Your task to perform on an android device: toggle sleep mode Image 0: 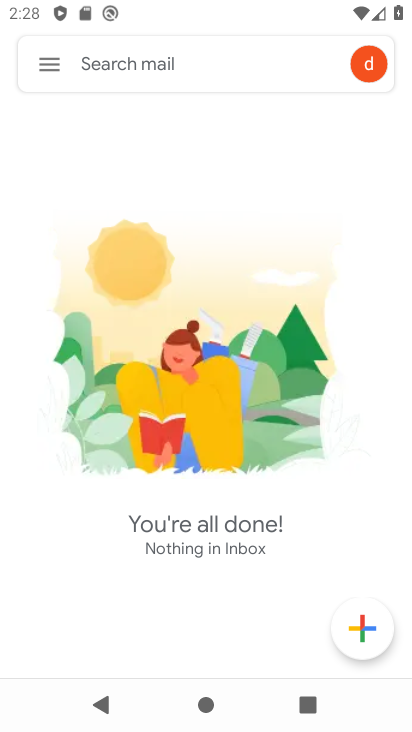
Step 0: press home button
Your task to perform on an android device: toggle sleep mode Image 1: 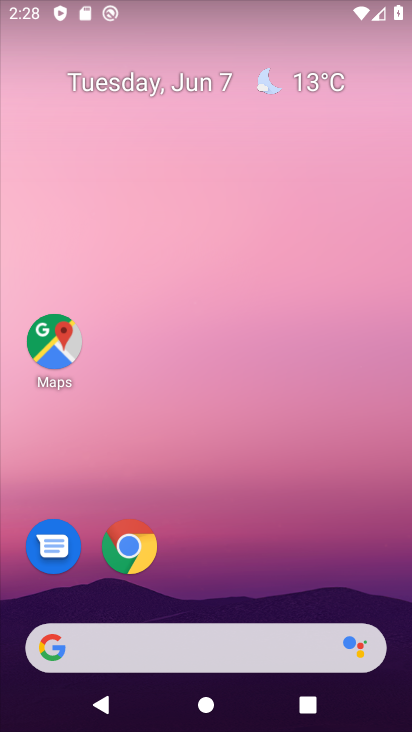
Step 1: drag from (347, 554) to (305, 188)
Your task to perform on an android device: toggle sleep mode Image 2: 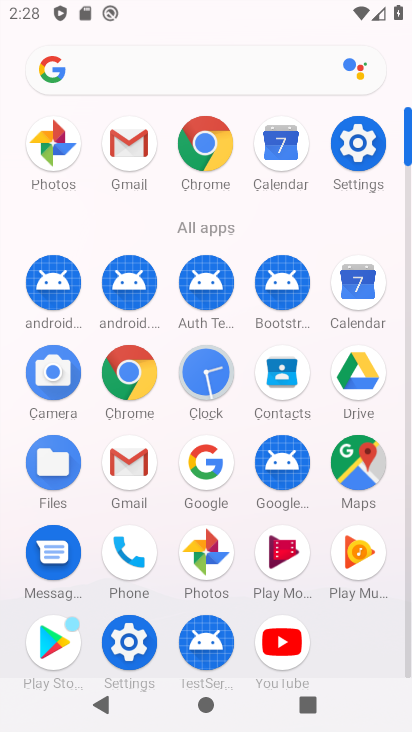
Step 2: click (363, 163)
Your task to perform on an android device: toggle sleep mode Image 3: 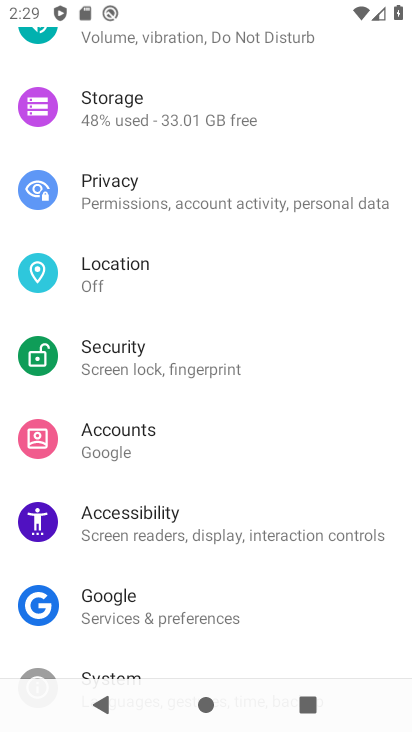
Step 3: drag from (305, 576) to (311, 365)
Your task to perform on an android device: toggle sleep mode Image 4: 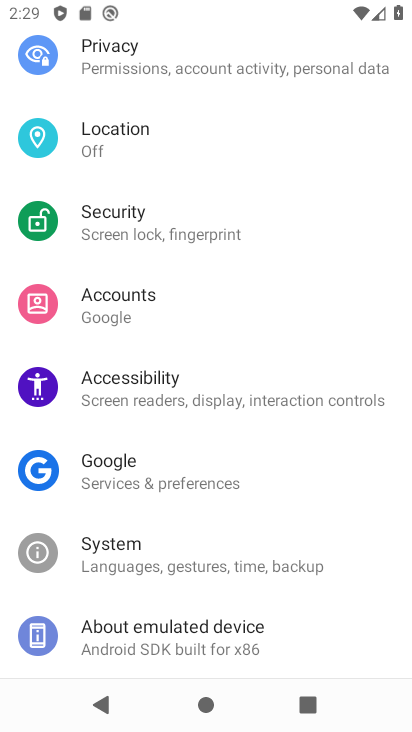
Step 4: drag from (313, 510) to (315, 332)
Your task to perform on an android device: toggle sleep mode Image 5: 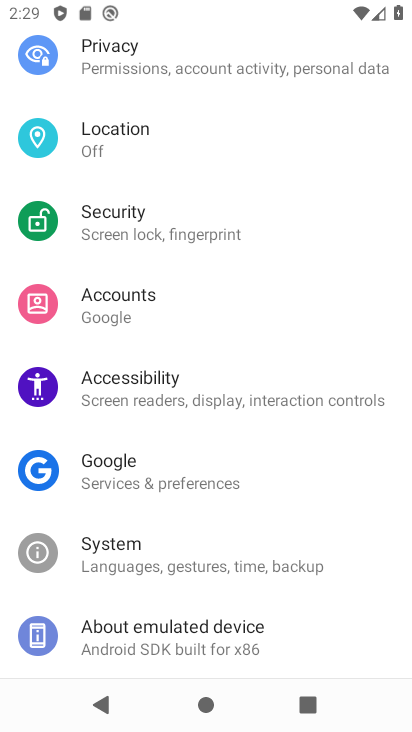
Step 5: drag from (298, 287) to (310, 445)
Your task to perform on an android device: toggle sleep mode Image 6: 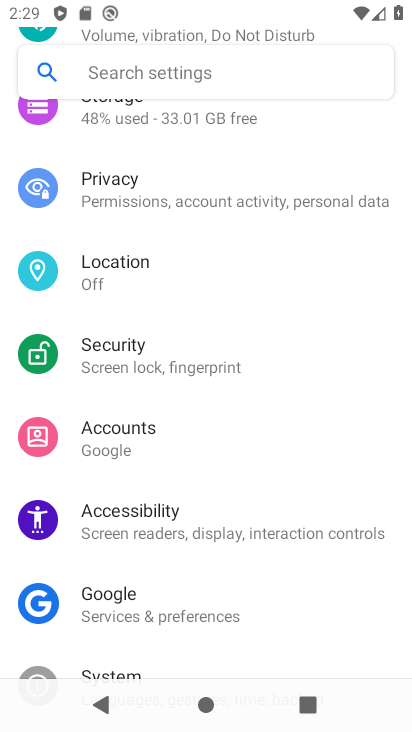
Step 6: drag from (298, 286) to (324, 474)
Your task to perform on an android device: toggle sleep mode Image 7: 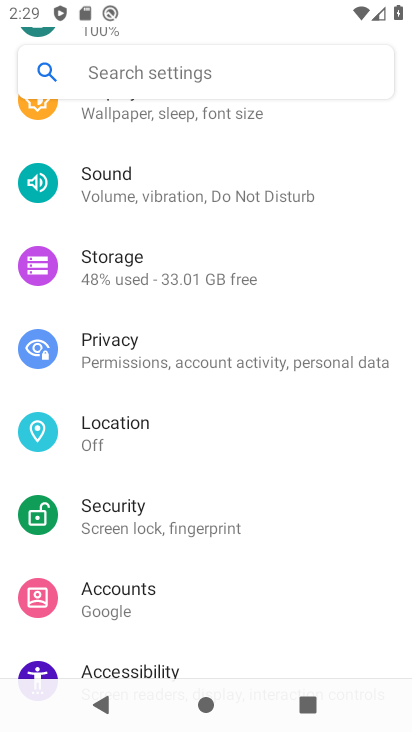
Step 7: drag from (316, 248) to (333, 397)
Your task to perform on an android device: toggle sleep mode Image 8: 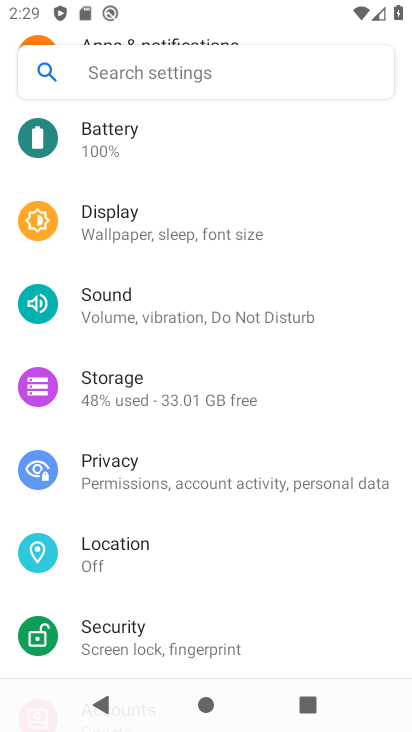
Step 8: drag from (308, 224) to (316, 373)
Your task to perform on an android device: toggle sleep mode Image 9: 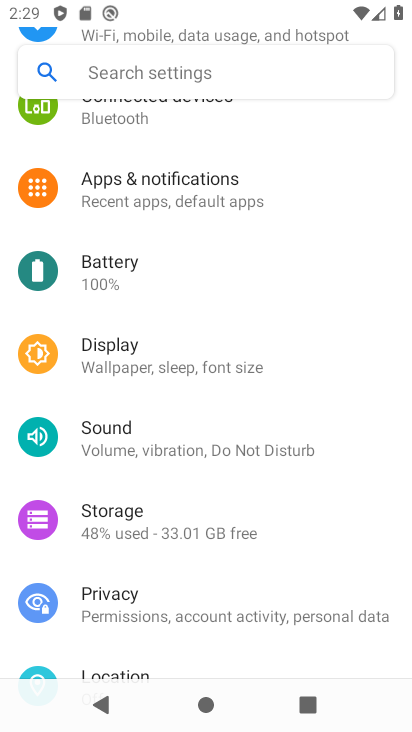
Step 9: click (183, 361)
Your task to perform on an android device: toggle sleep mode Image 10: 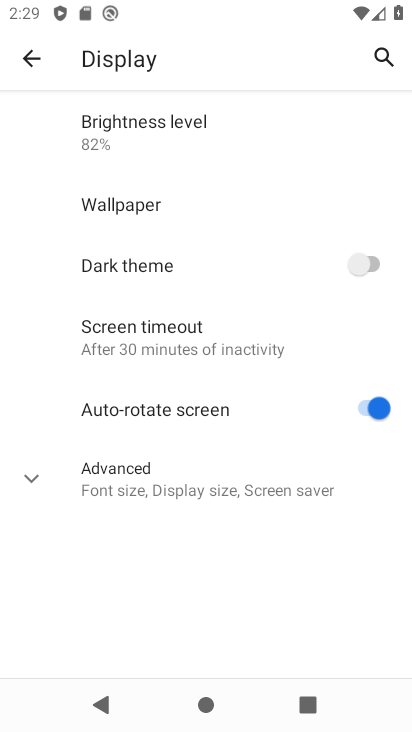
Step 10: click (206, 466)
Your task to perform on an android device: toggle sleep mode Image 11: 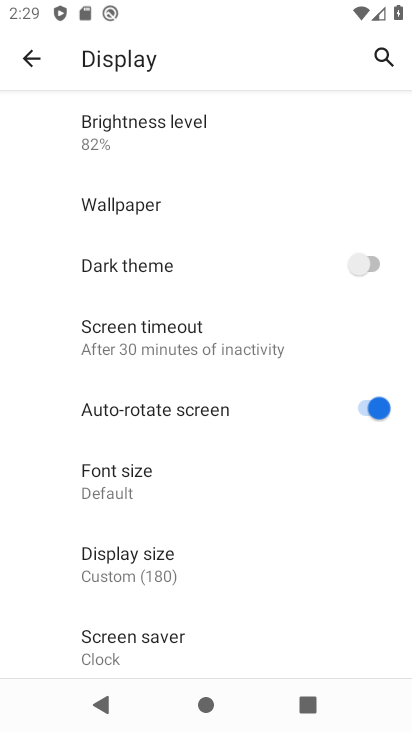
Step 11: task complete